Your task to perform on an android device: toggle improve location accuracy Image 0: 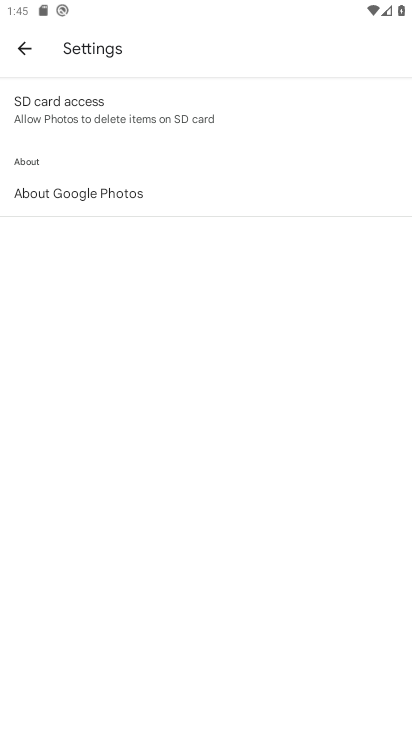
Step 0: press back button
Your task to perform on an android device: toggle improve location accuracy Image 1: 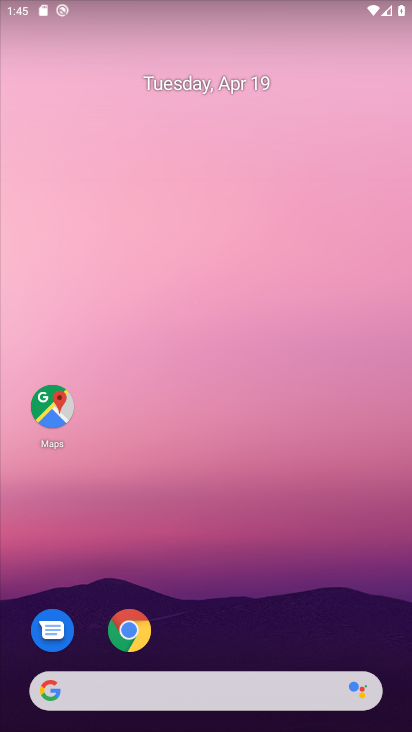
Step 1: drag from (223, 545) to (146, 48)
Your task to perform on an android device: toggle improve location accuracy Image 2: 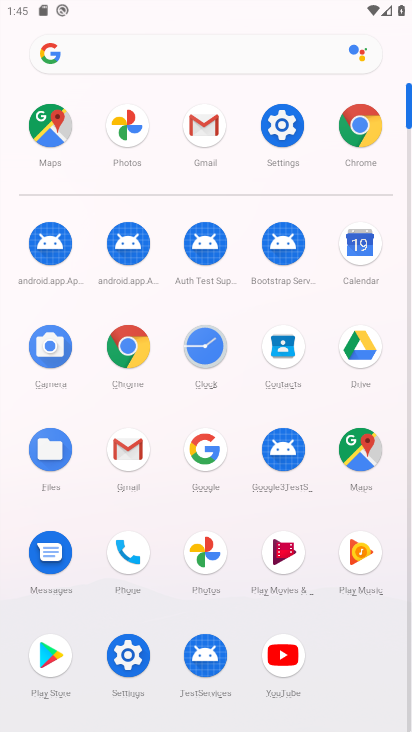
Step 2: click (281, 125)
Your task to perform on an android device: toggle improve location accuracy Image 3: 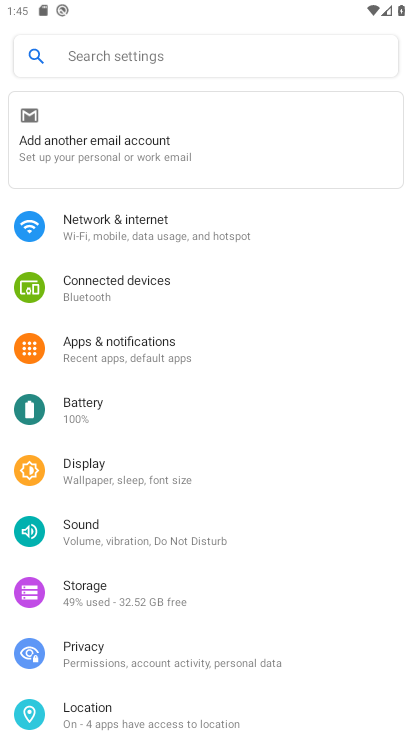
Step 3: click (234, 707)
Your task to perform on an android device: toggle improve location accuracy Image 4: 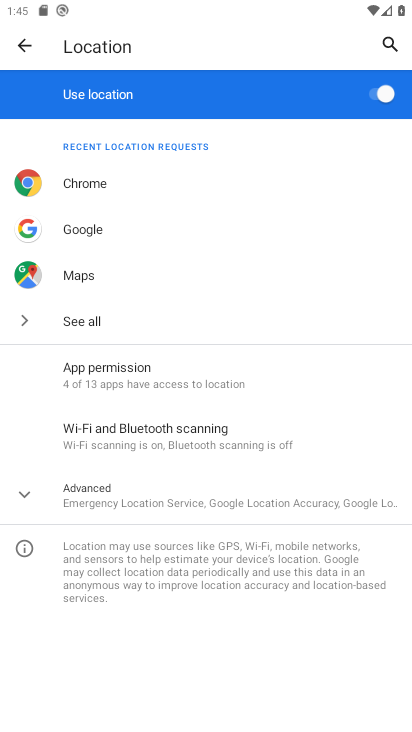
Step 4: click (144, 505)
Your task to perform on an android device: toggle improve location accuracy Image 5: 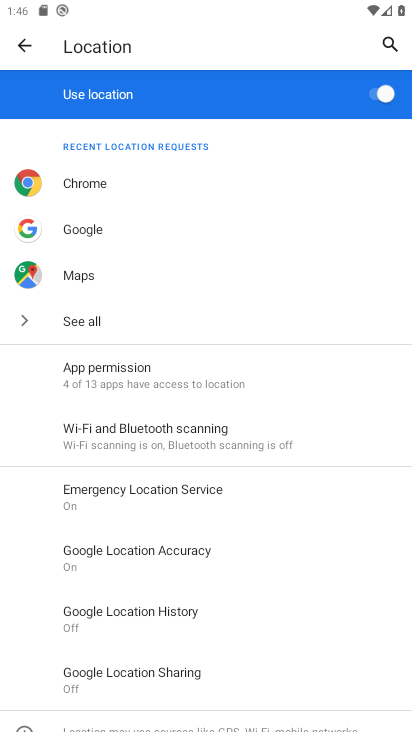
Step 5: click (139, 552)
Your task to perform on an android device: toggle improve location accuracy Image 6: 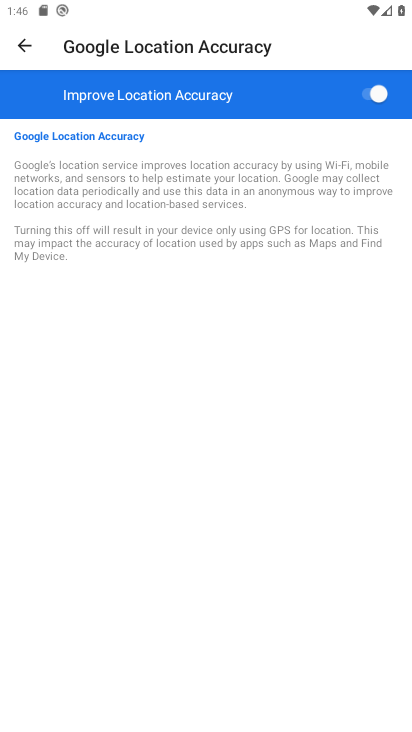
Step 6: click (361, 98)
Your task to perform on an android device: toggle improve location accuracy Image 7: 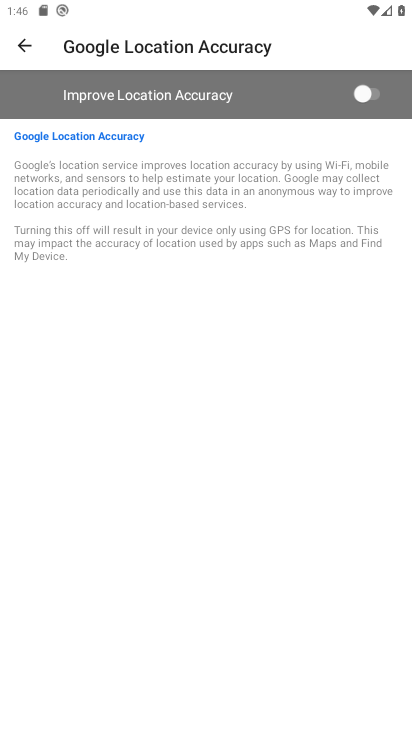
Step 7: task complete